Your task to perform on an android device: Go to network settings Image 0: 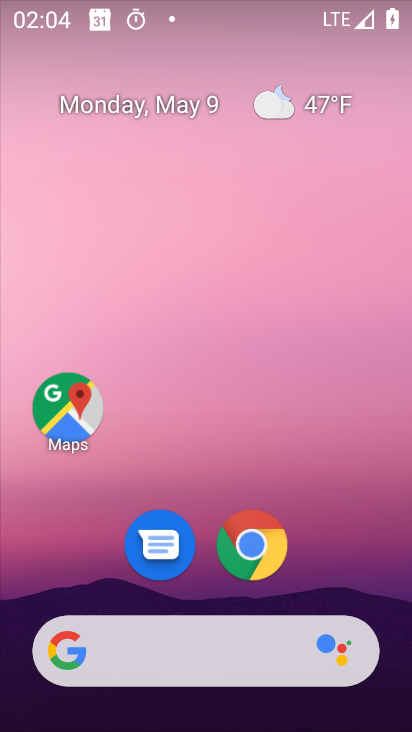
Step 0: drag from (332, 587) to (384, 4)
Your task to perform on an android device: Go to network settings Image 1: 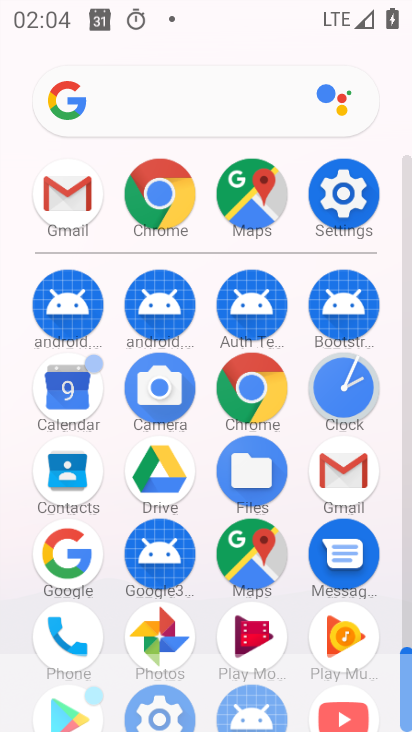
Step 1: click (341, 192)
Your task to perform on an android device: Go to network settings Image 2: 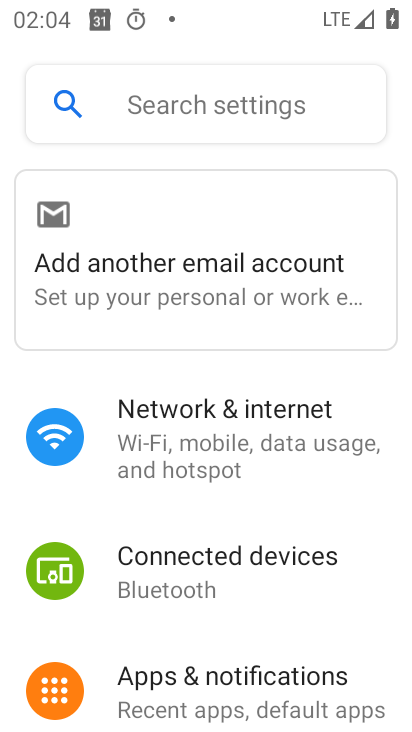
Step 2: click (278, 478)
Your task to perform on an android device: Go to network settings Image 3: 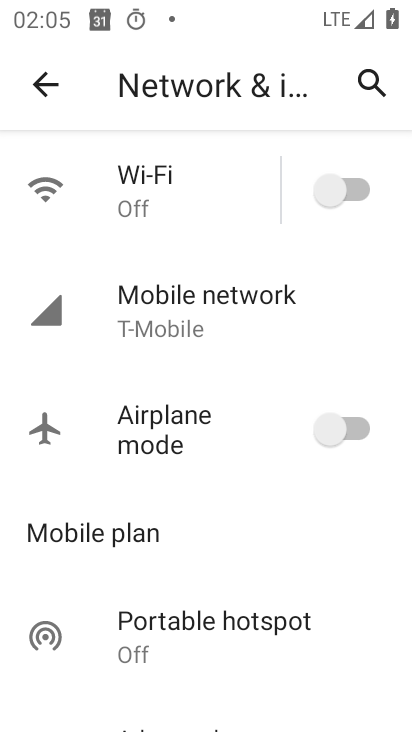
Step 3: click (250, 302)
Your task to perform on an android device: Go to network settings Image 4: 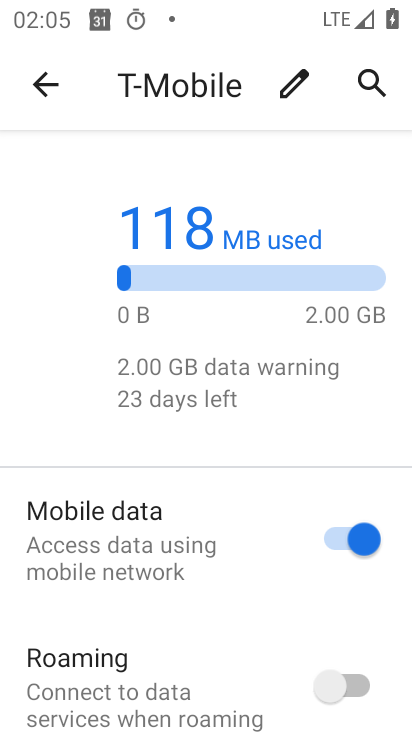
Step 4: task complete